Your task to perform on an android device: turn on translation in the chrome app Image 0: 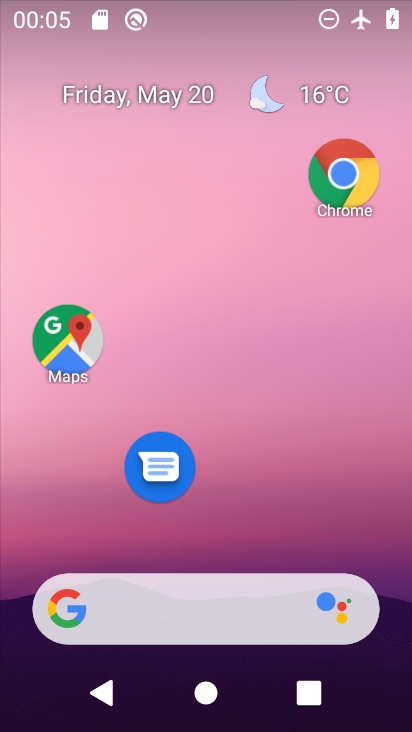
Step 0: click (350, 181)
Your task to perform on an android device: turn on translation in the chrome app Image 1: 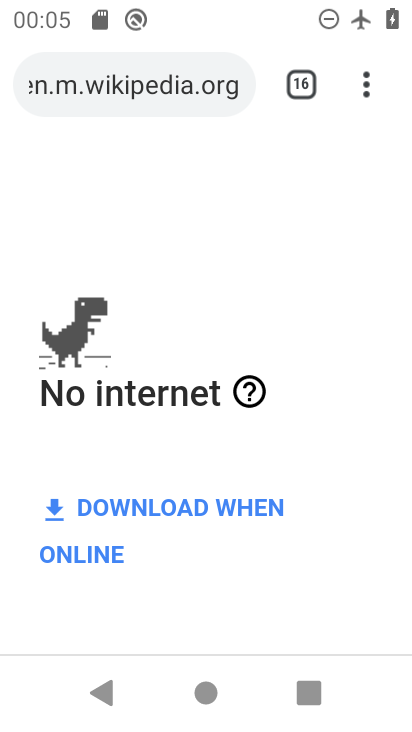
Step 1: click (373, 72)
Your task to perform on an android device: turn on translation in the chrome app Image 2: 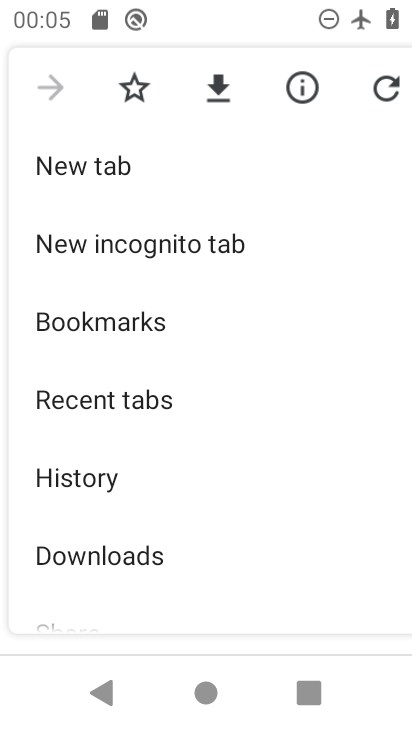
Step 2: drag from (174, 559) to (214, 230)
Your task to perform on an android device: turn on translation in the chrome app Image 3: 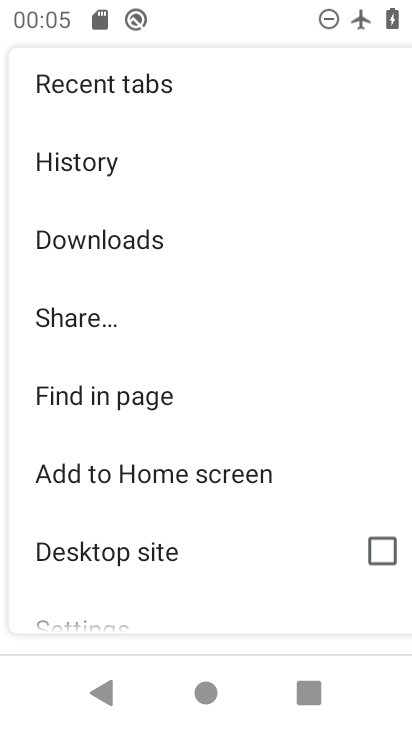
Step 3: drag from (213, 530) to (208, 251)
Your task to perform on an android device: turn on translation in the chrome app Image 4: 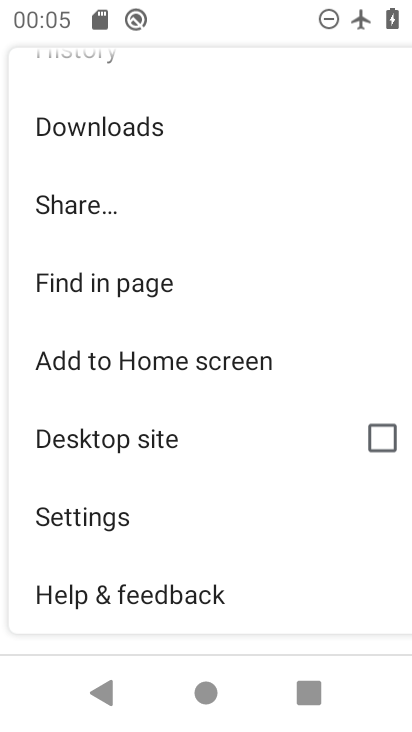
Step 4: click (140, 513)
Your task to perform on an android device: turn on translation in the chrome app Image 5: 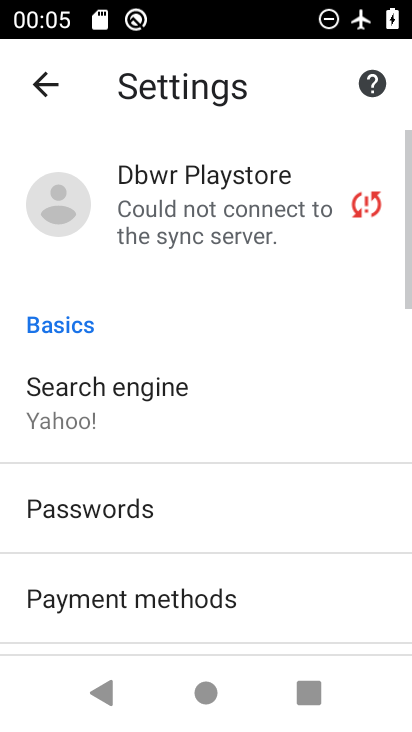
Step 5: drag from (217, 565) to (231, 190)
Your task to perform on an android device: turn on translation in the chrome app Image 6: 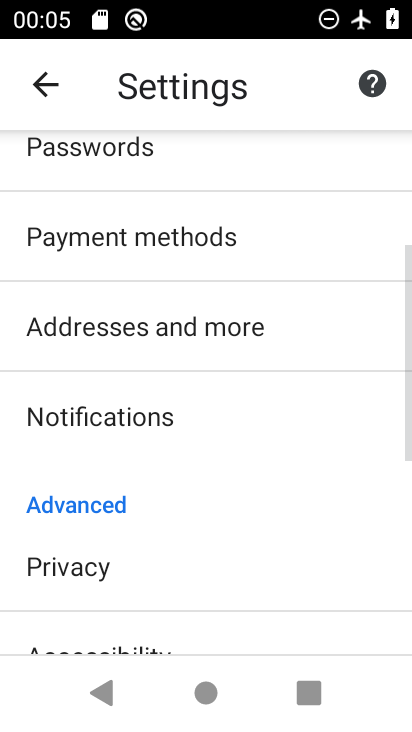
Step 6: drag from (173, 533) to (182, 243)
Your task to perform on an android device: turn on translation in the chrome app Image 7: 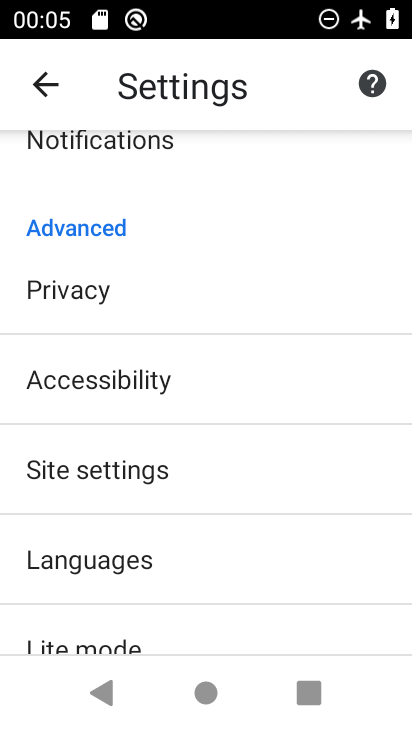
Step 7: click (176, 477)
Your task to perform on an android device: turn on translation in the chrome app Image 8: 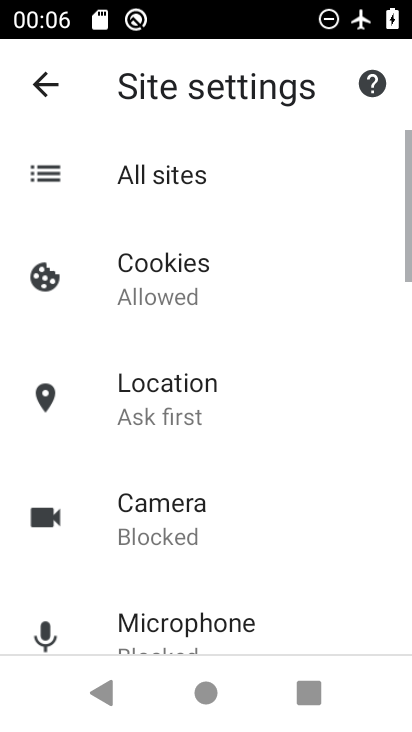
Step 8: drag from (235, 587) to (211, 246)
Your task to perform on an android device: turn on translation in the chrome app Image 9: 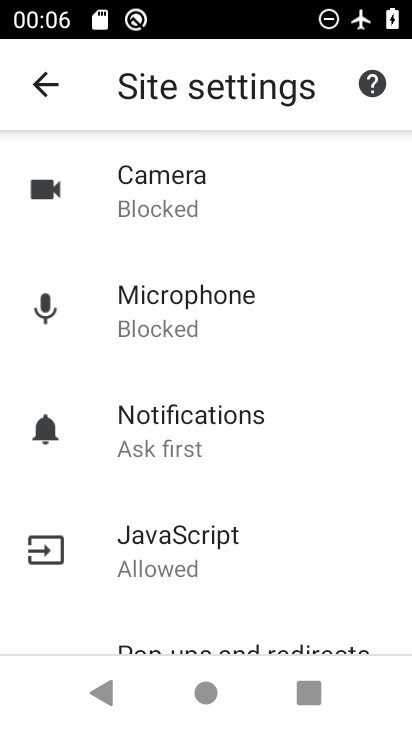
Step 9: click (124, 562)
Your task to perform on an android device: turn on translation in the chrome app Image 10: 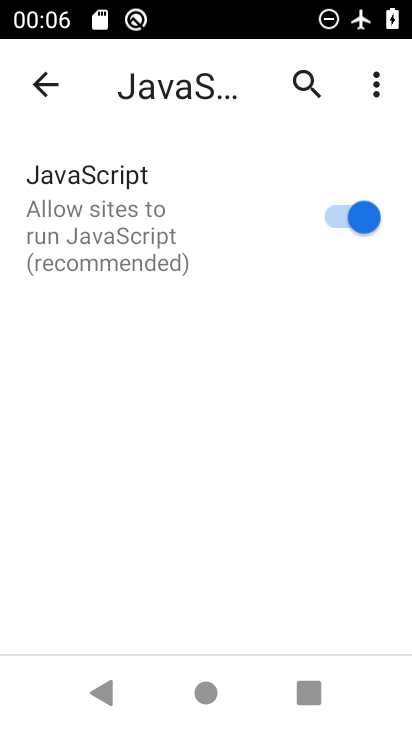
Step 10: click (44, 87)
Your task to perform on an android device: turn on translation in the chrome app Image 11: 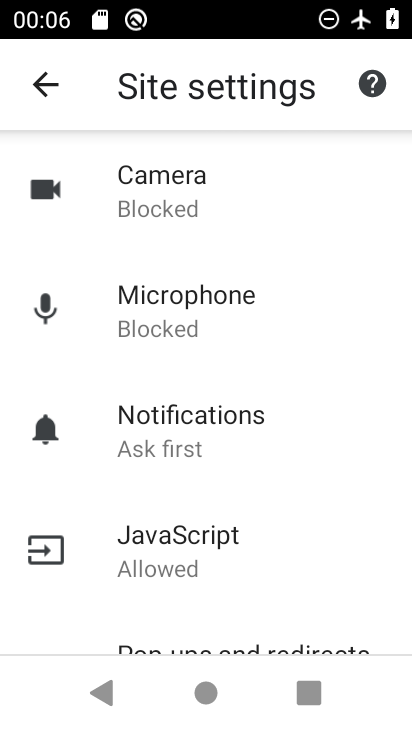
Step 11: drag from (206, 541) to (234, 302)
Your task to perform on an android device: turn on translation in the chrome app Image 12: 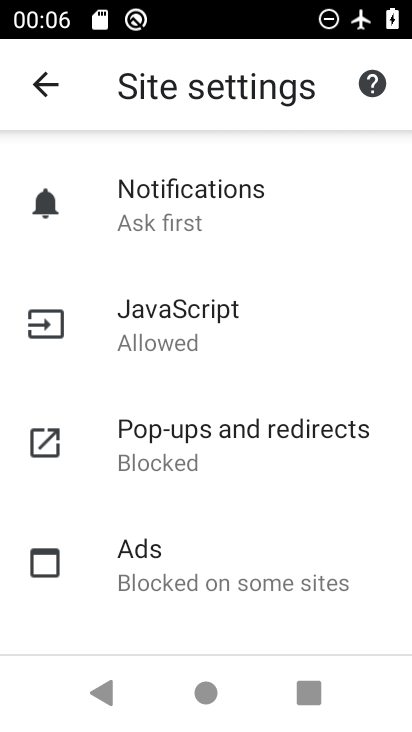
Step 12: drag from (204, 207) to (194, 604)
Your task to perform on an android device: turn on translation in the chrome app Image 13: 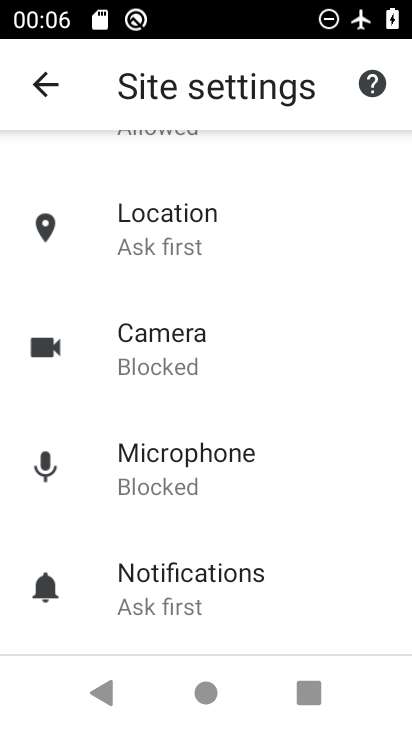
Step 13: click (177, 254)
Your task to perform on an android device: turn on translation in the chrome app Image 14: 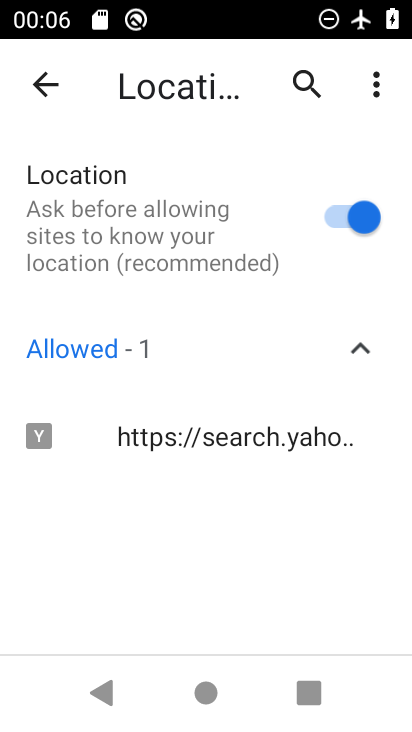
Step 14: task complete